Your task to perform on an android device: Open sound settings Image 0: 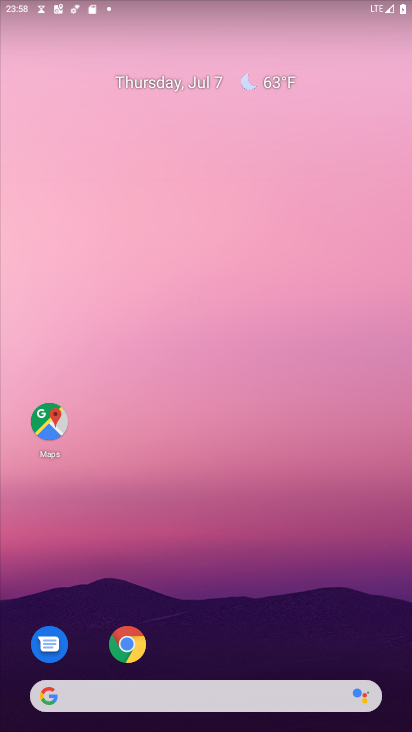
Step 0: drag from (231, 725) to (226, 158)
Your task to perform on an android device: Open sound settings Image 1: 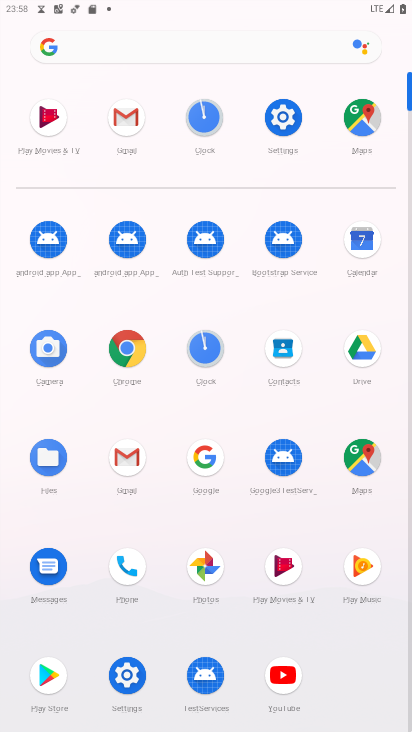
Step 1: click (285, 115)
Your task to perform on an android device: Open sound settings Image 2: 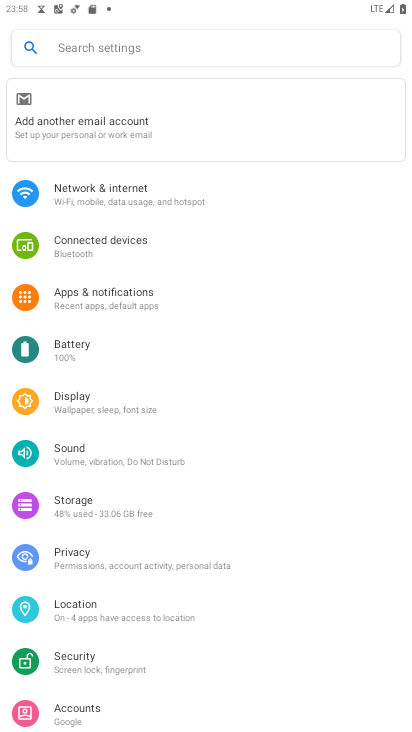
Step 2: click (77, 449)
Your task to perform on an android device: Open sound settings Image 3: 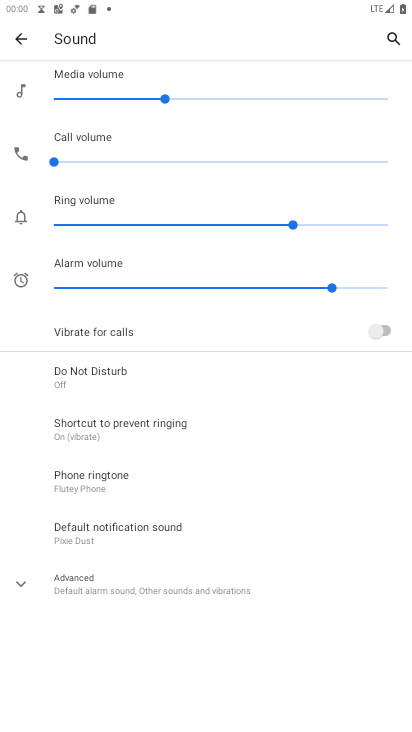
Step 3: task complete